Your task to perform on an android device: turn on airplane mode Image 0: 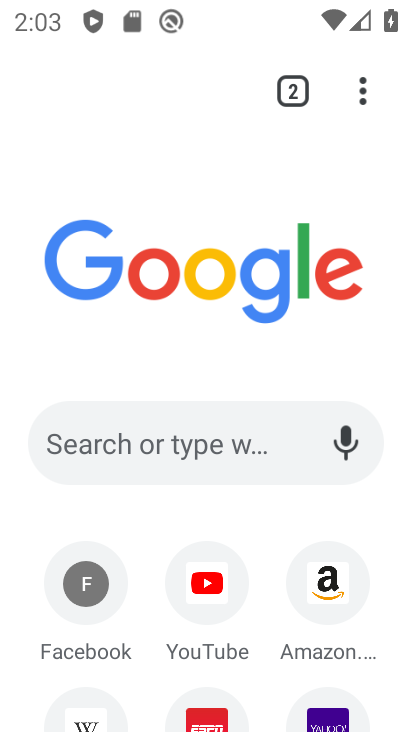
Step 0: press home button
Your task to perform on an android device: turn on airplane mode Image 1: 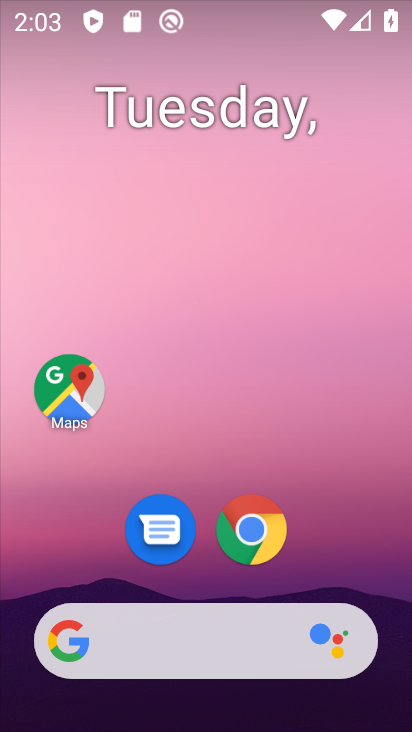
Step 1: drag from (364, 551) to (298, 23)
Your task to perform on an android device: turn on airplane mode Image 2: 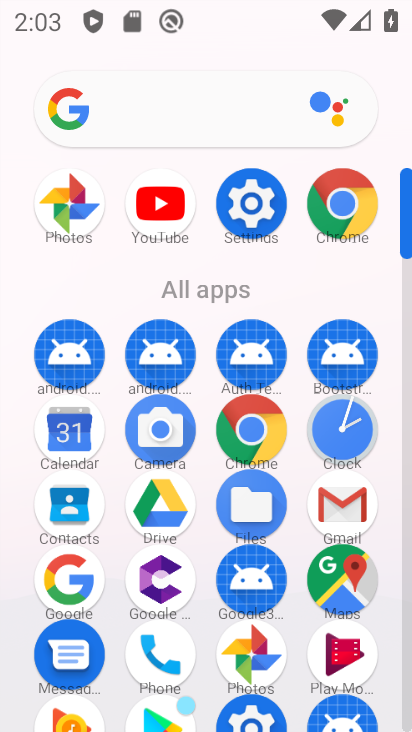
Step 2: click (264, 218)
Your task to perform on an android device: turn on airplane mode Image 3: 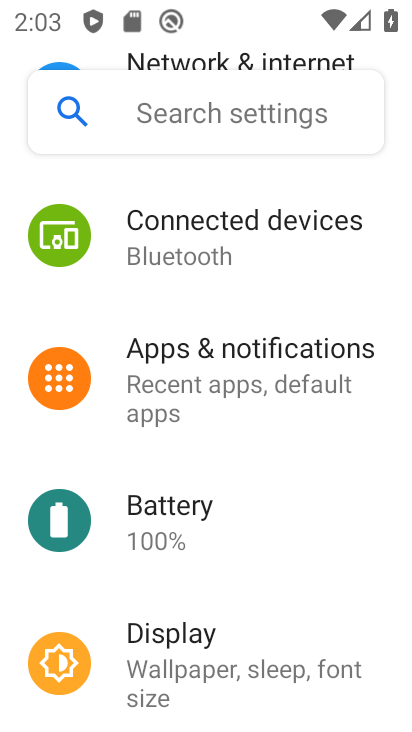
Step 3: drag from (280, 255) to (262, 572)
Your task to perform on an android device: turn on airplane mode Image 4: 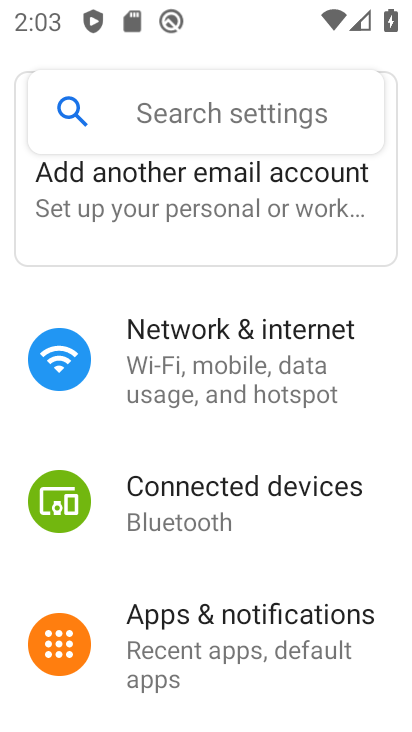
Step 4: click (227, 384)
Your task to perform on an android device: turn on airplane mode Image 5: 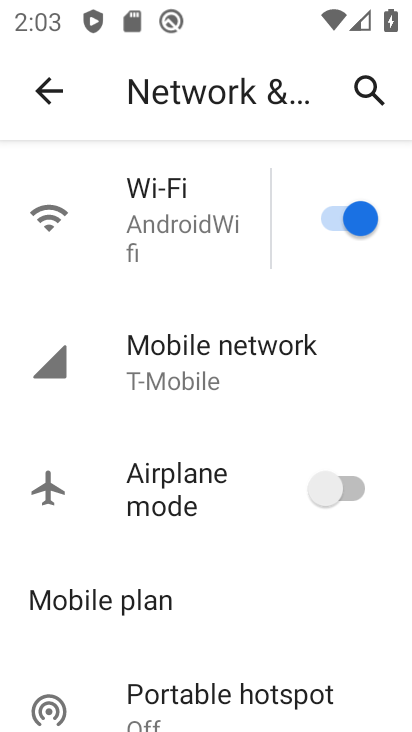
Step 5: click (334, 487)
Your task to perform on an android device: turn on airplane mode Image 6: 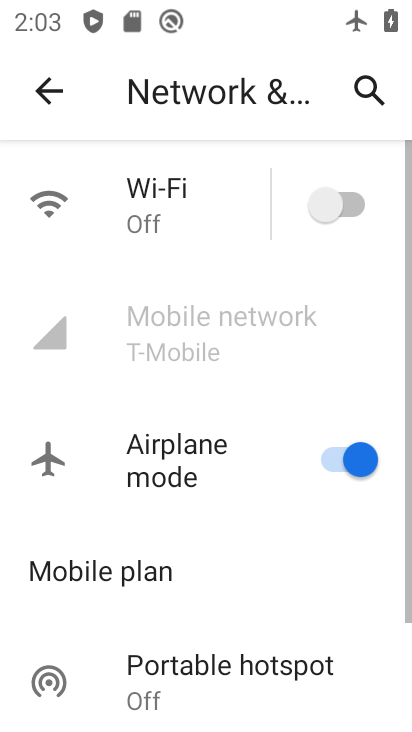
Step 6: task complete